Your task to perform on an android device: clear all cookies in the chrome app Image 0: 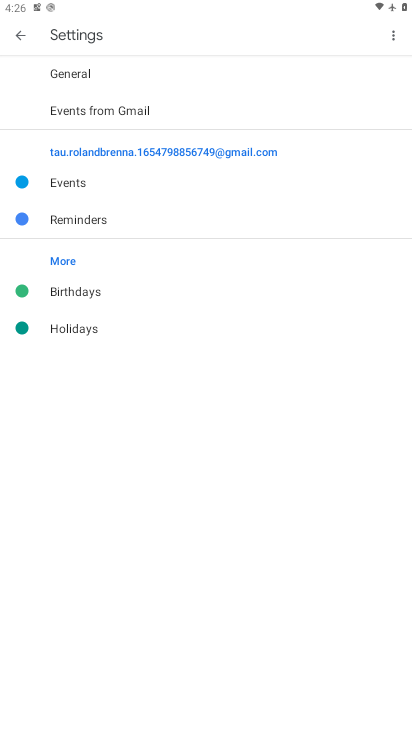
Step 0: press home button
Your task to perform on an android device: clear all cookies in the chrome app Image 1: 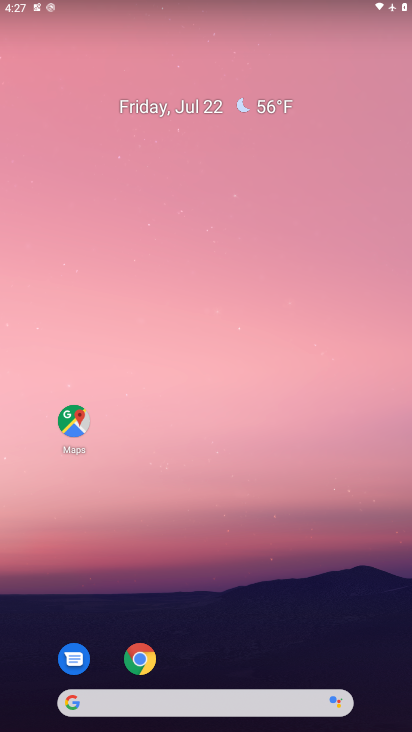
Step 1: drag from (210, 690) to (270, 255)
Your task to perform on an android device: clear all cookies in the chrome app Image 2: 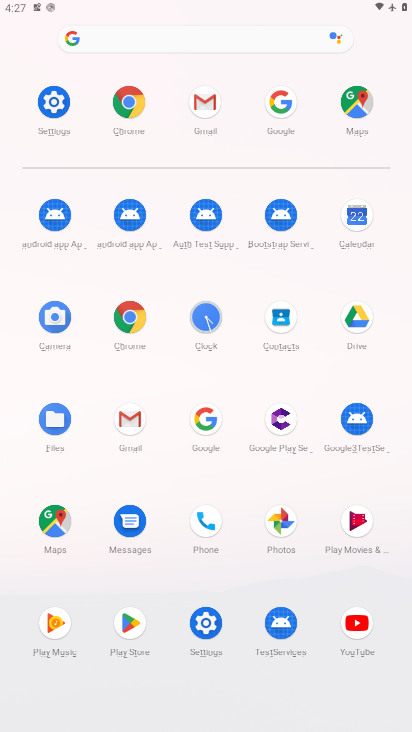
Step 2: click (126, 320)
Your task to perform on an android device: clear all cookies in the chrome app Image 3: 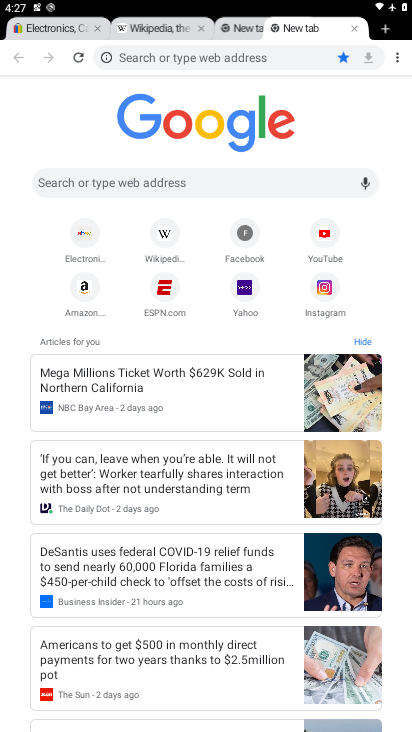
Step 3: click (396, 55)
Your task to perform on an android device: clear all cookies in the chrome app Image 4: 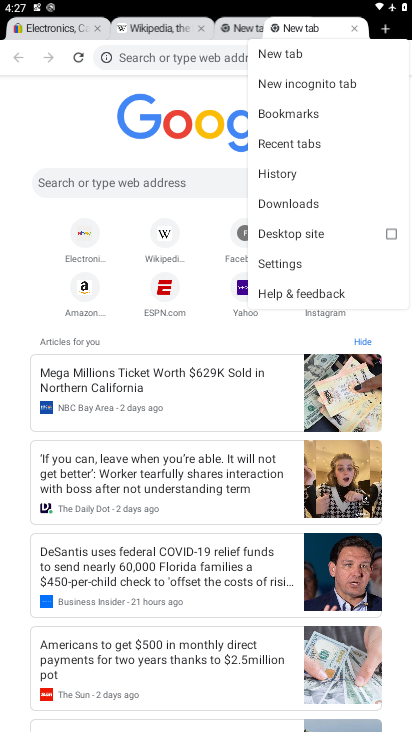
Step 4: click (286, 177)
Your task to perform on an android device: clear all cookies in the chrome app Image 5: 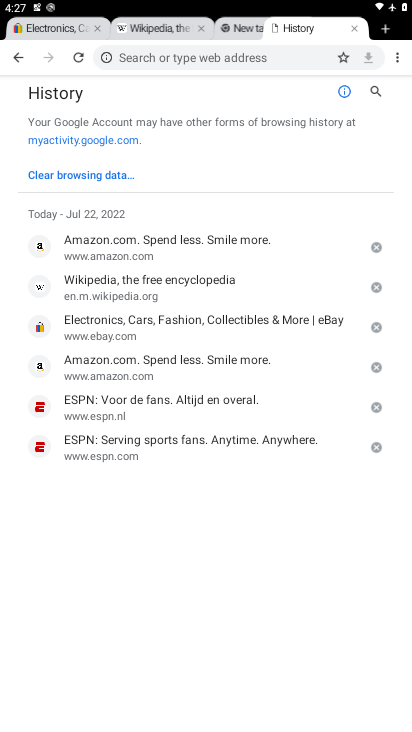
Step 5: click (99, 166)
Your task to perform on an android device: clear all cookies in the chrome app Image 6: 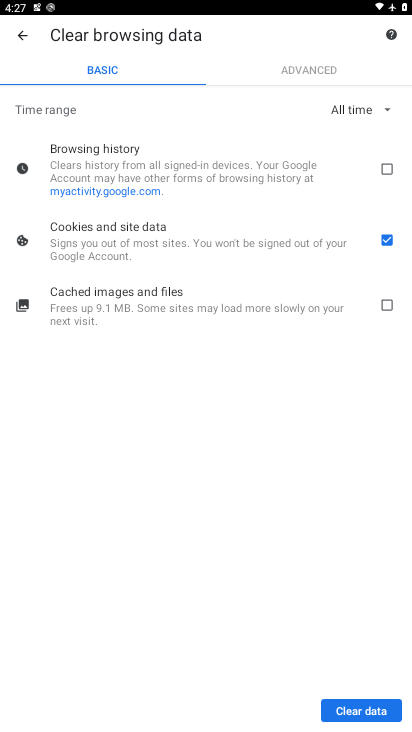
Step 6: click (392, 302)
Your task to perform on an android device: clear all cookies in the chrome app Image 7: 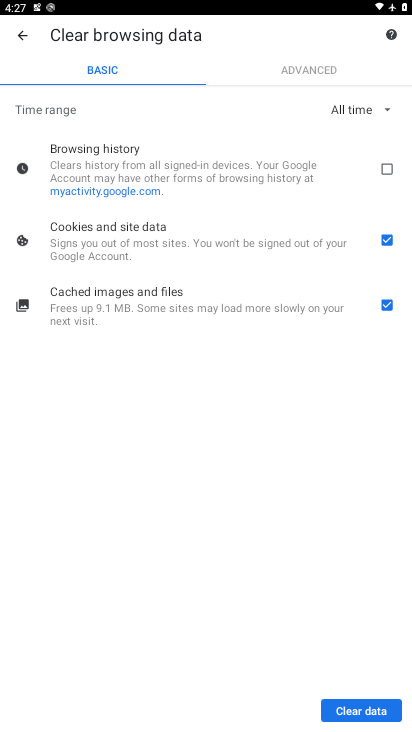
Step 7: click (389, 172)
Your task to perform on an android device: clear all cookies in the chrome app Image 8: 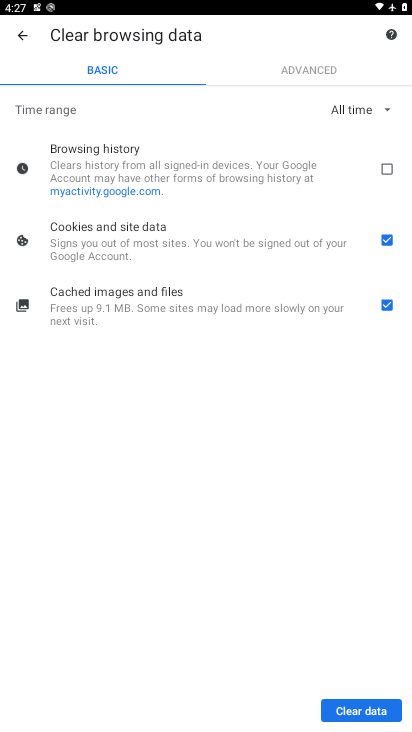
Step 8: click (387, 167)
Your task to perform on an android device: clear all cookies in the chrome app Image 9: 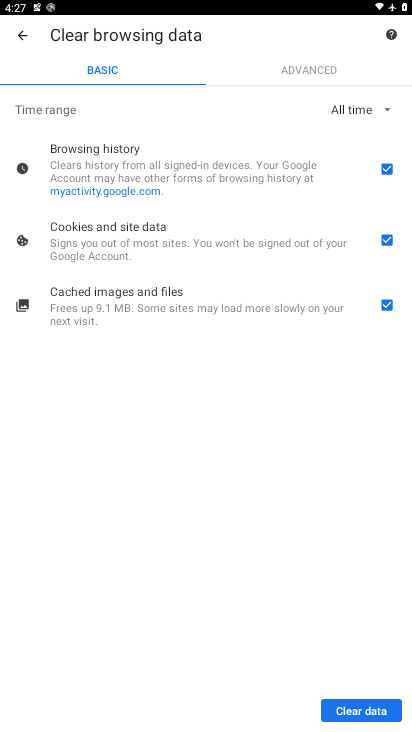
Step 9: click (375, 715)
Your task to perform on an android device: clear all cookies in the chrome app Image 10: 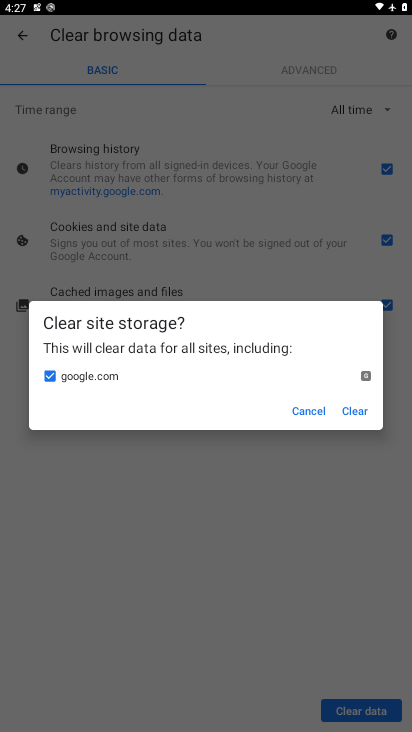
Step 10: click (368, 421)
Your task to perform on an android device: clear all cookies in the chrome app Image 11: 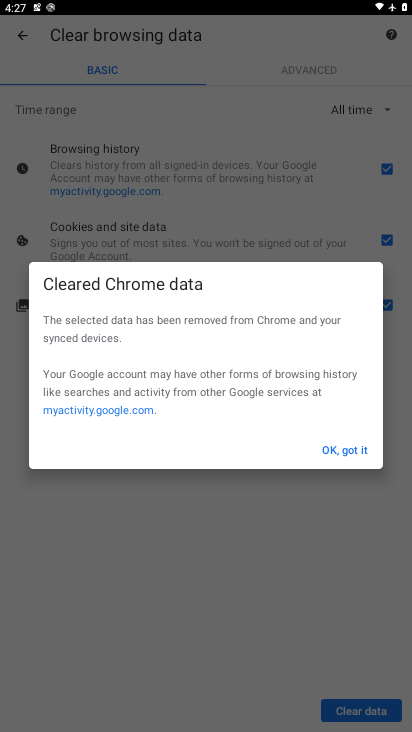
Step 11: click (352, 454)
Your task to perform on an android device: clear all cookies in the chrome app Image 12: 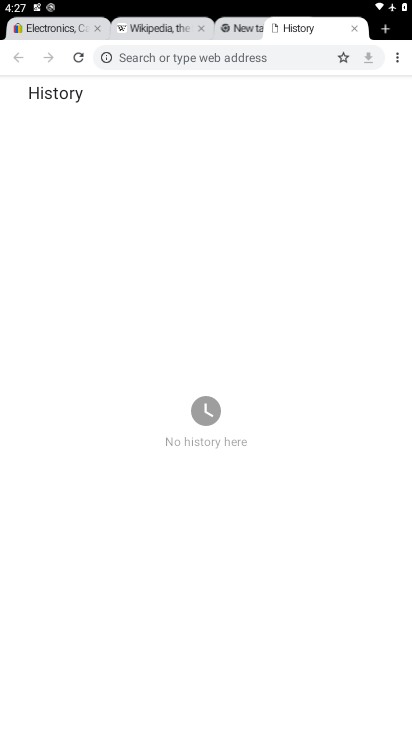
Step 12: task complete